Your task to perform on an android device: Search for hotels in Sydney Image 0: 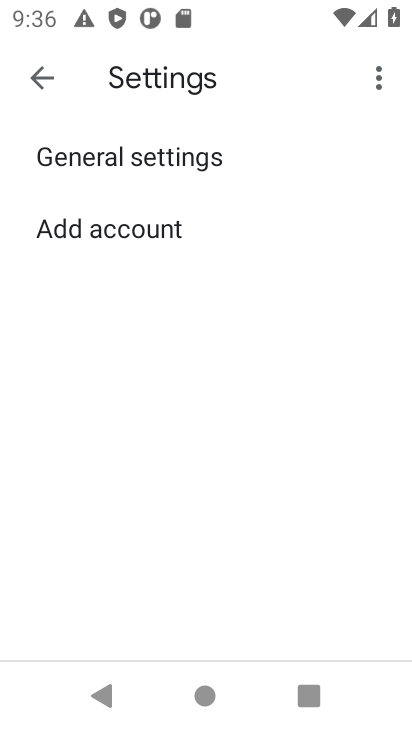
Step 0: press home button
Your task to perform on an android device: Search for hotels in Sydney Image 1: 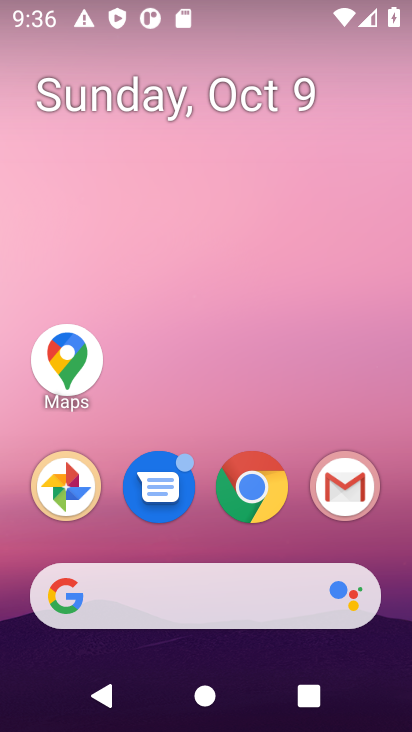
Step 1: drag from (205, 553) to (223, 332)
Your task to perform on an android device: Search for hotels in Sydney Image 2: 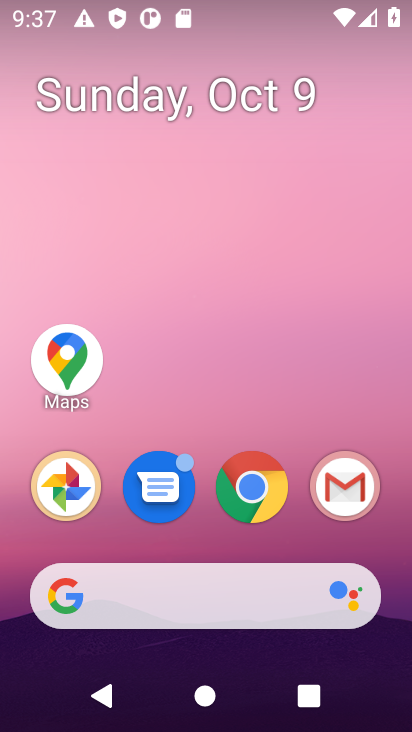
Step 2: drag from (245, 541) to (198, 8)
Your task to perform on an android device: Search for hotels in Sydney Image 3: 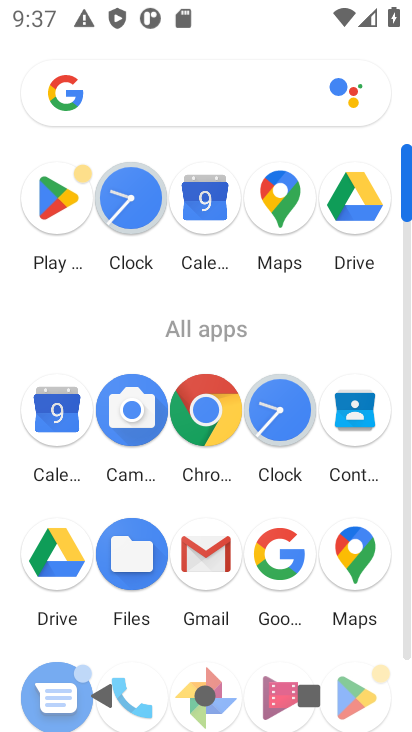
Step 3: drag from (316, 592) to (334, 360)
Your task to perform on an android device: Search for hotels in Sydney Image 4: 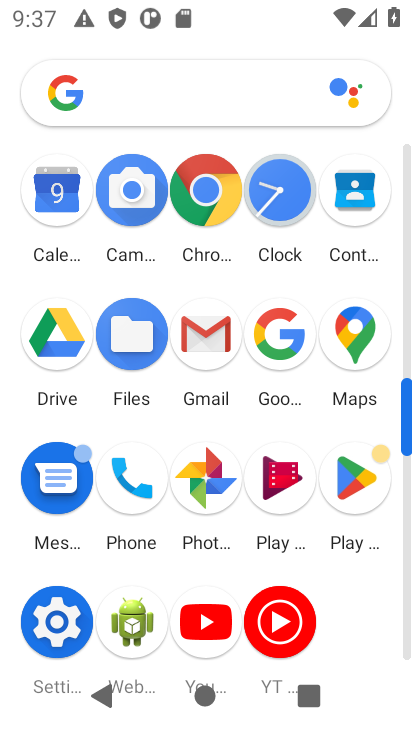
Step 4: click (278, 350)
Your task to perform on an android device: Search for hotels in Sydney Image 5: 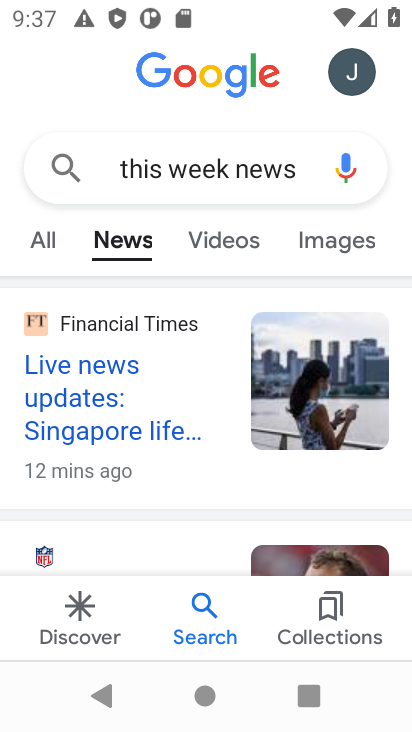
Step 5: click (309, 183)
Your task to perform on an android device: Search for hotels in Sydney Image 6: 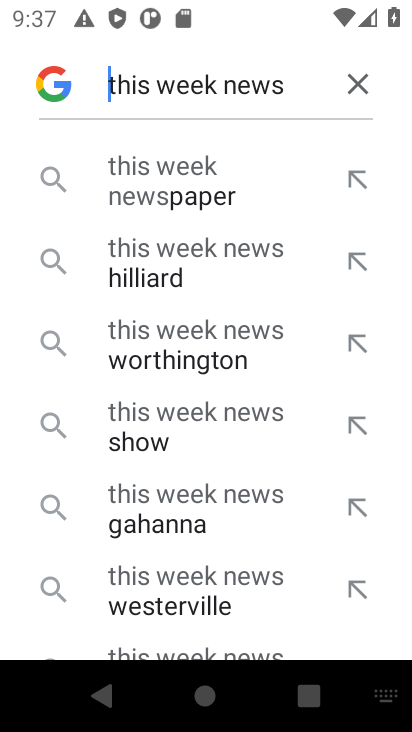
Step 6: click (359, 90)
Your task to perform on an android device: Search for hotels in Sydney Image 7: 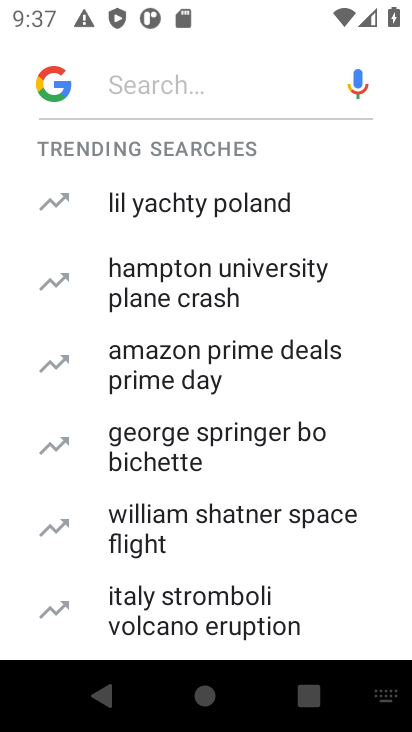
Step 7: type "hotels in Sydney"
Your task to perform on an android device: Search for hotels in Sydney Image 8: 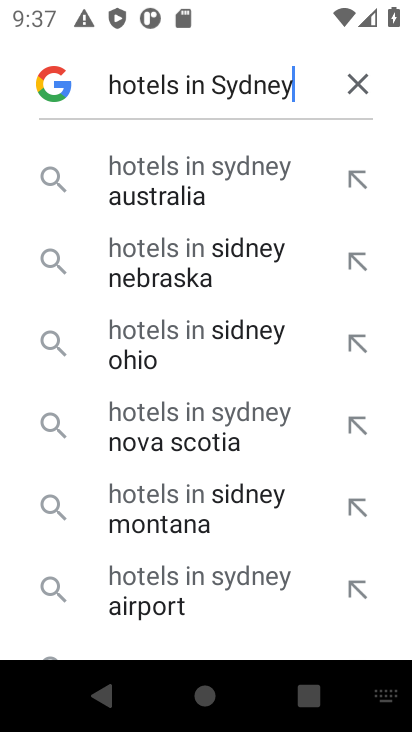
Step 8: click (211, 174)
Your task to perform on an android device: Search for hotels in Sydney Image 9: 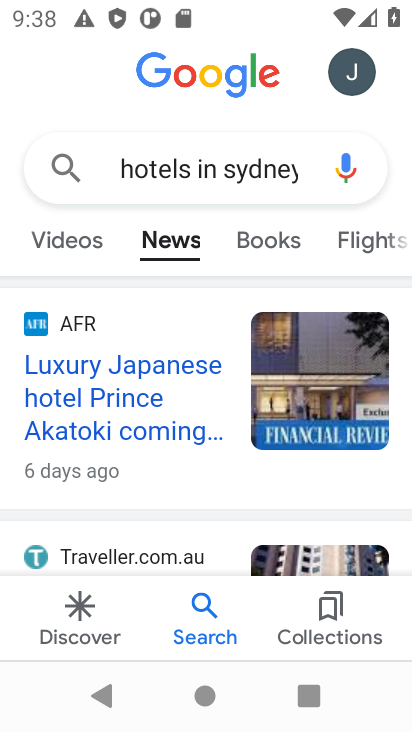
Step 9: drag from (61, 255) to (386, 249)
Your task to perform on an android device: Search for hotels in Sydney Image 10: 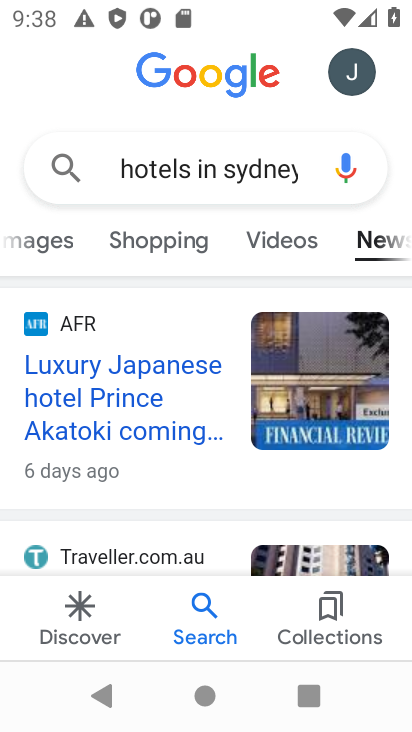
Step 10: drag from (48, 257) to (407, 259)
Your task to perform on an android device: Search for hotels in Sydney Image 11: 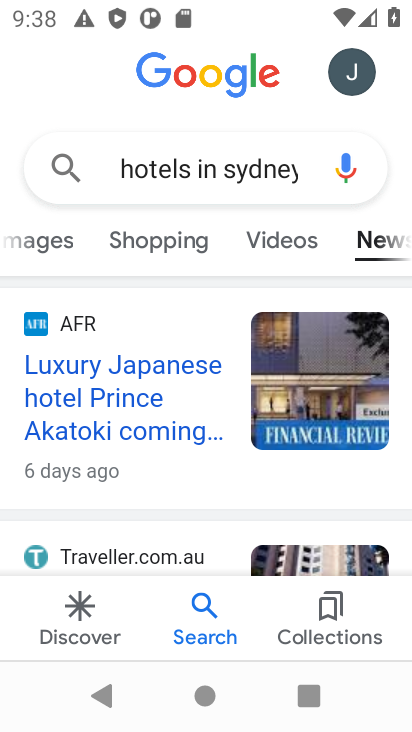
Step 11: drag from (154, 241) to (344, 253)
Your task to perform on an android device: Search for hotels in Sydney Image 12: 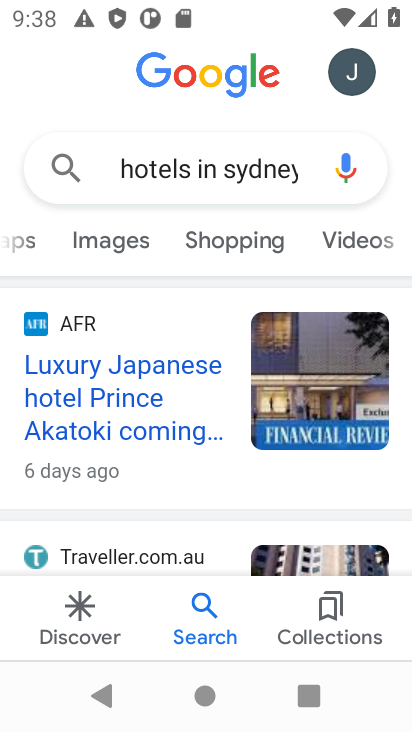
Step 12: drag from (69, 236) to (286, 239)
Your task to perform on an android device: Search for hotels in Sydney Image 13: 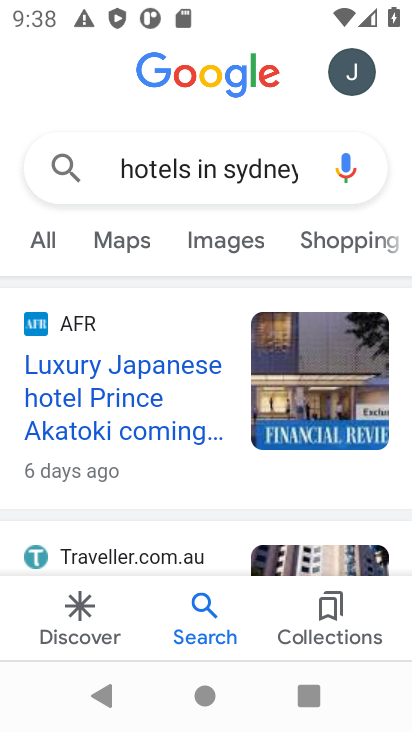
Step 13: click (45, 249)
Your task to perform on an android device: Search for hotels in Sydney Image 14: 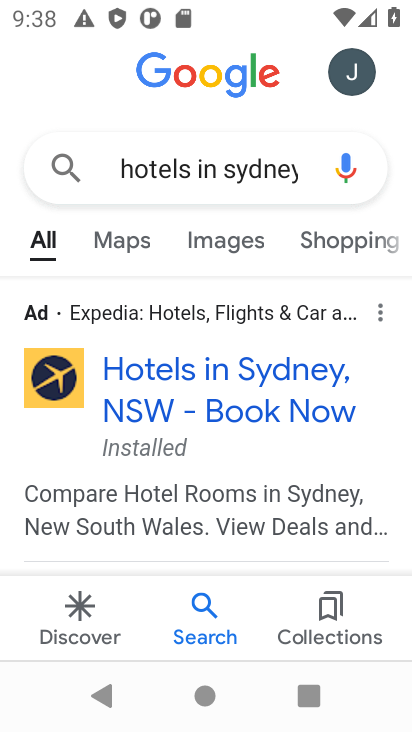
Step 14: task complete